Your task to perform on an android device: Open Maps and search for coffee Image 0: 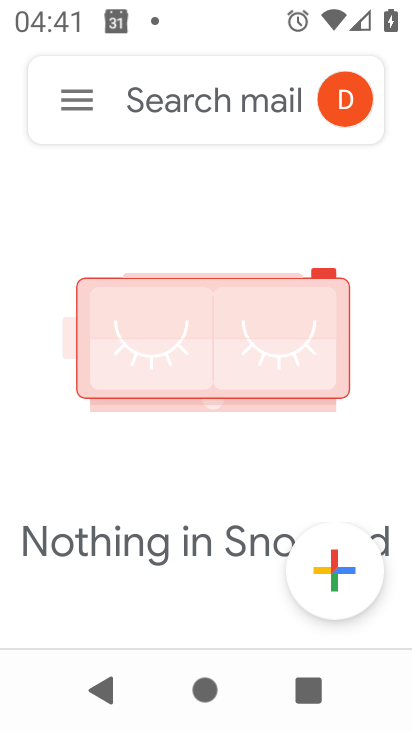
Step 0: press home button
Your task to perform on an android device: Open Maps and search for coffee Image 1: 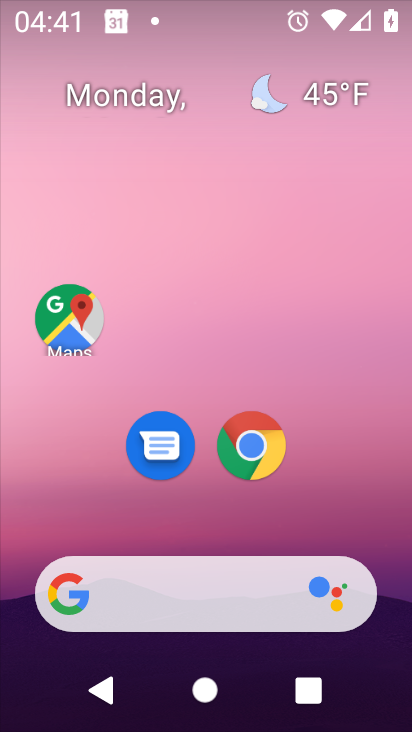
Step 1: click (84, 303)
Your task to perform on an android device: Open Maps and search for coffee Image 2: 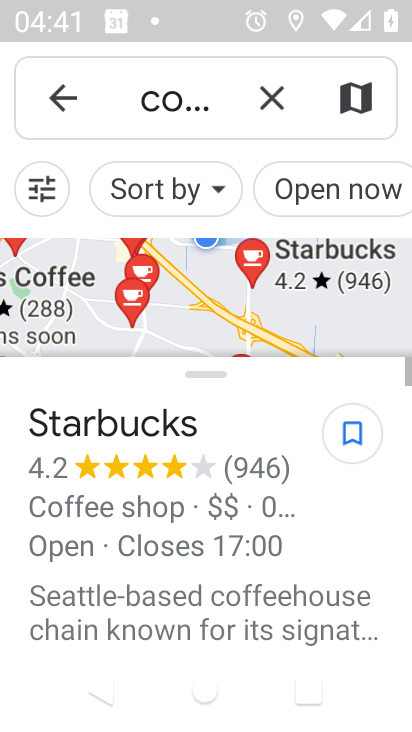
Step 2: task complete